Your task to perform on an android device: Go to CNN.com Image 0: 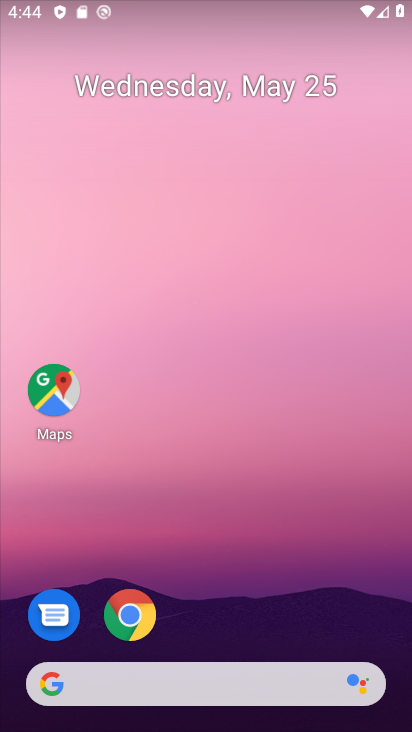
Step 0: drag from (275, 579) to (336, 93)
Your task to perform on an android device: Go to CNN.com Image 1: 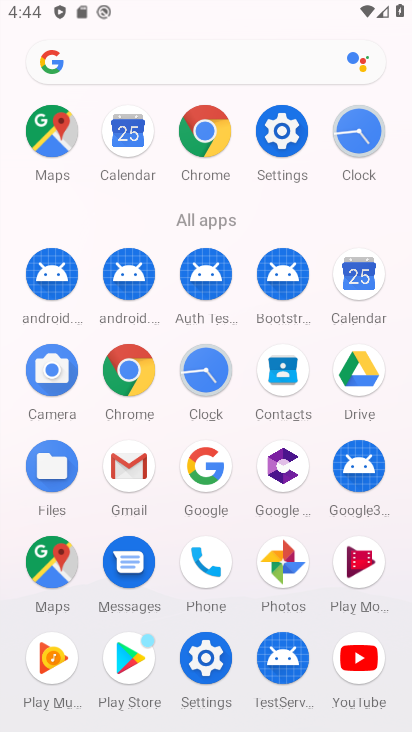
Step 1: click (198, 154)
Your task to perform on an android device: Go to CNN.com Image 2: 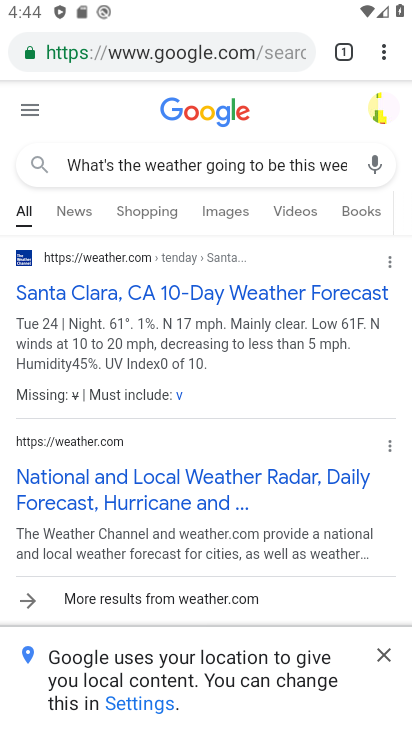
Step 2: click (226, 63)
Your task to perform on an android device: Go to CNN.com Image 3: 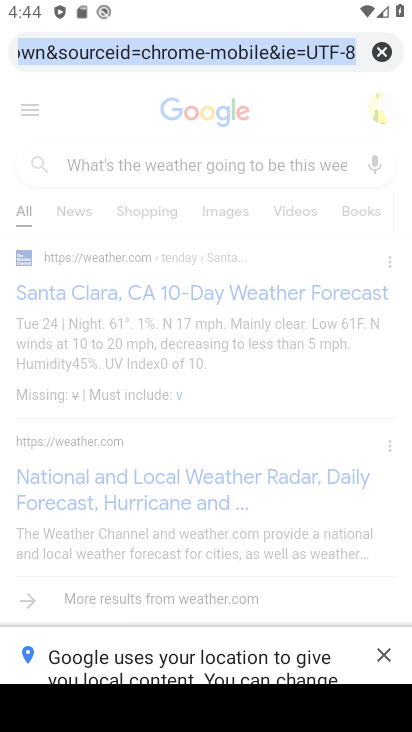
Step 3: click (389, 47)
Your task to perform on an android device: Go to CNN.com Image 4: 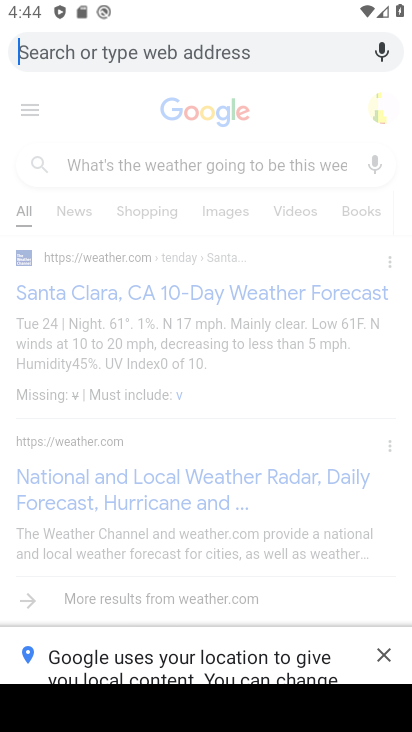
Step 4: type " CNN.com"
Your task to perform on an android device: Go to CNN.com Image 5: 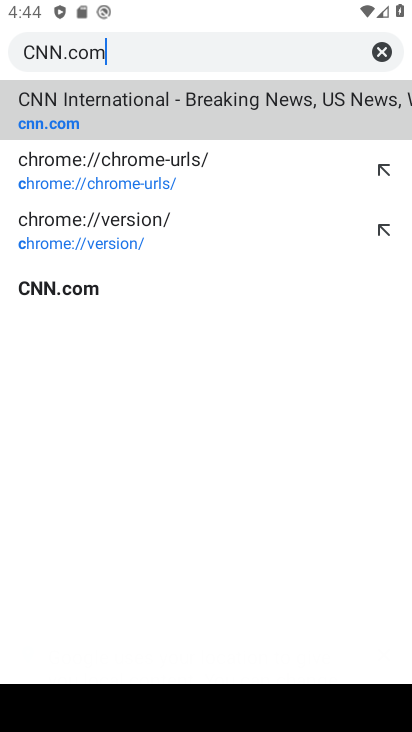
Step 5: type ""
Your task to perform on an android device: Go to CNN.com Image 6: 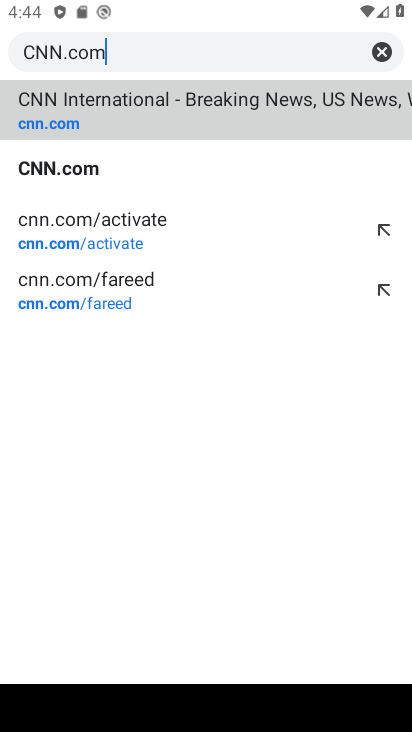
Step 6: click (176, 98)
Your task to perform on an android device: Go to CNN.com Image 7: 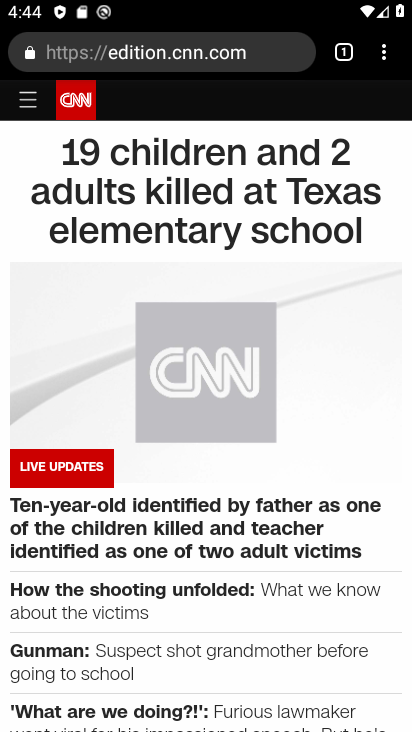
Step 7: task complete